Your task to perform on an android device: Do I have any events today? Image 0: 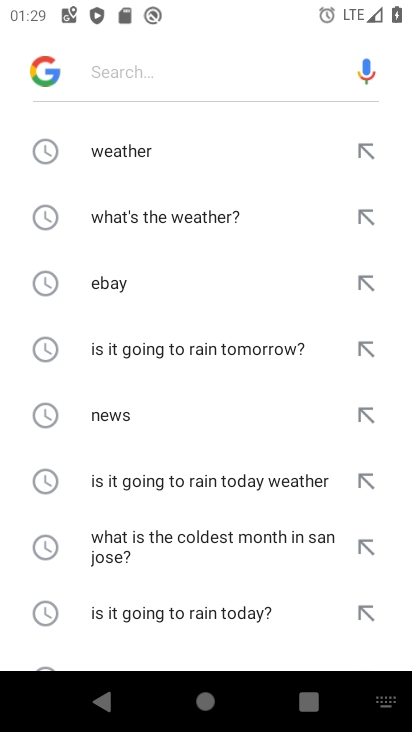
Step 0: press home button
Your task to perform on an android device: Do I have any events today? Image 1: 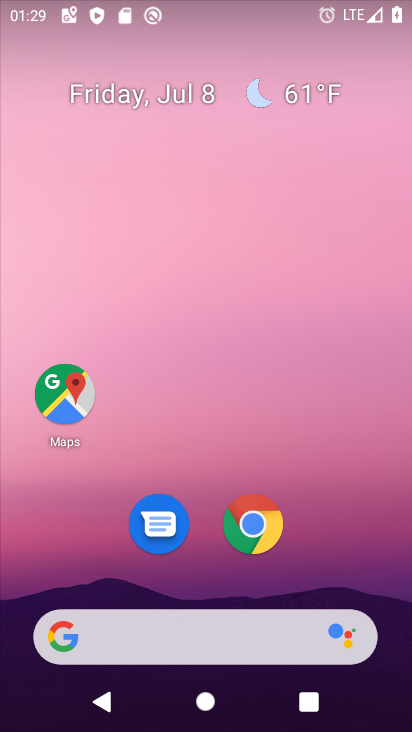
Step 1: drag from (307, 527) to (331, 85)
Your task to perform on an android device: Do I have any events today? Image 2: 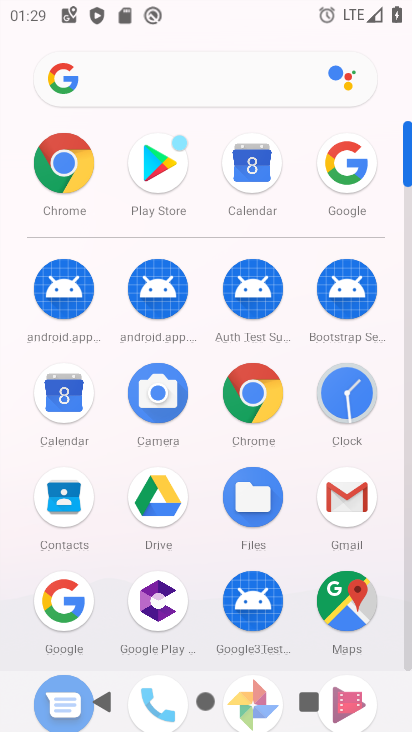
Step 2: click (72, 384)
Your task to perform on an android device: Do I have any events today? Image 3: 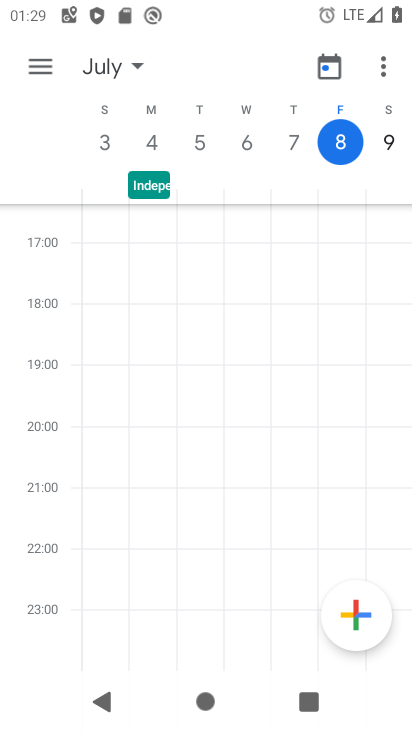
Step 3: click (336, 138)
Your task to perform on an android device: Do I have any events today? Image 4: 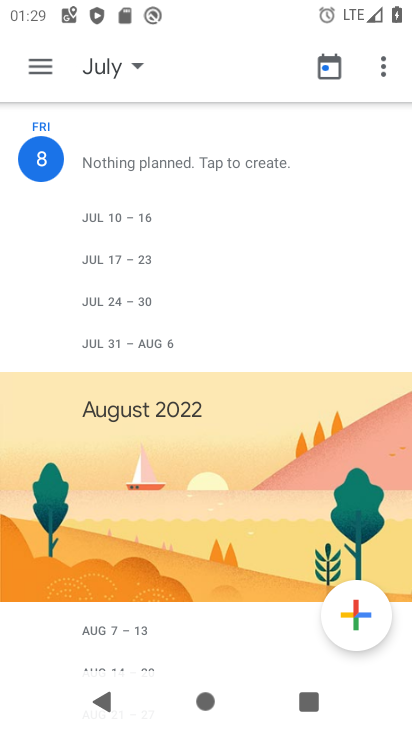
Step 4: task complete